Your task to perform on an android device: Is it going to rain today? Image 0: 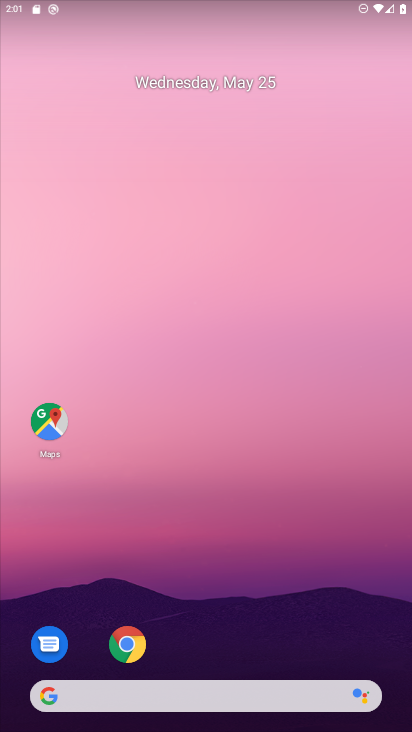
Step 0: drag from (263, 640) to (219, 293)
Your task to perform on an android device: Is it going to rain today? Image 1: 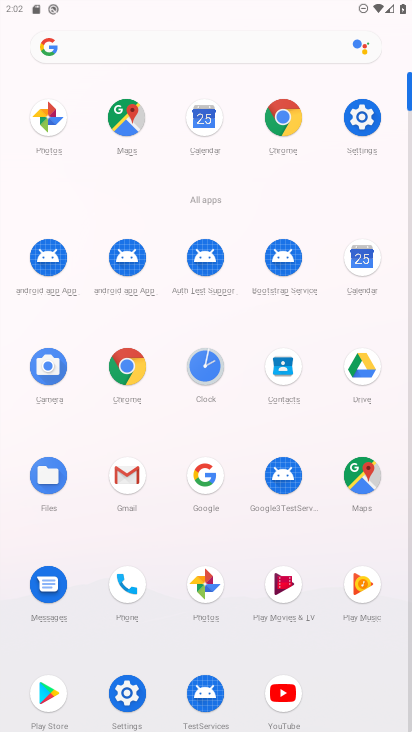
Step 1: click (276, 114)
Your task to perform on an android device: Is it going to rain today? Image 2: 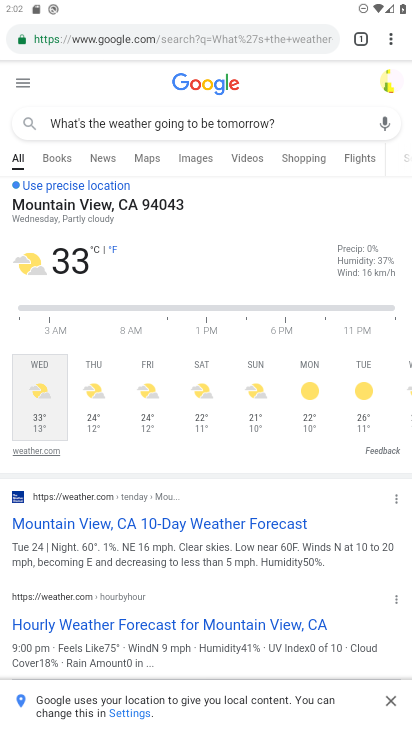
Step 2: click (288, 122)
Your task to perform on an android device: Is it going to rain today? Image 3: 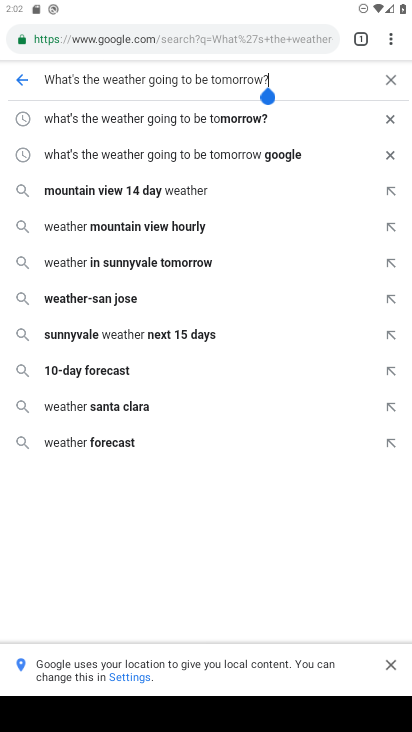
Step 3: click (393, 79)
Your task to perform on an android device: Is it going to rain today? Image 4: 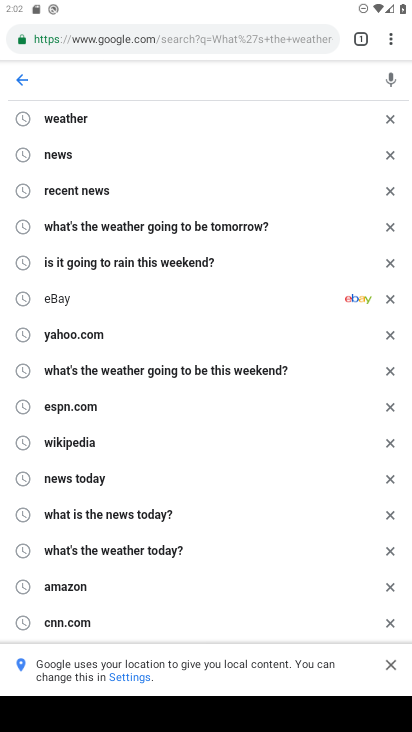
Step 4: type "Is it going to rain today?"
Your task to perform on an android device: Is it going to rain today? Image 5: 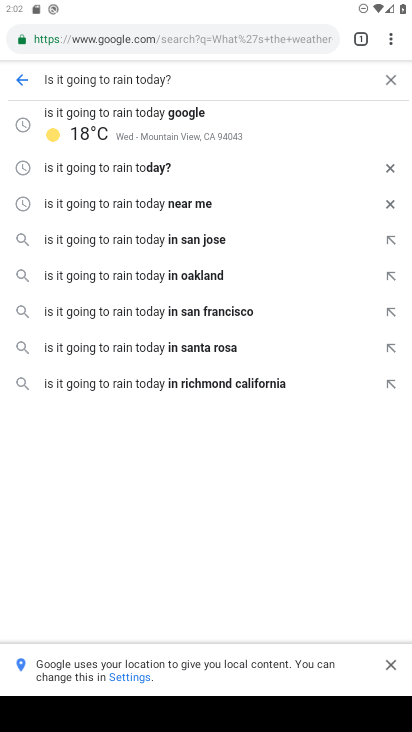
Step 5: click (122, 120)
Your task to perform on an android device: Is it going to rain today? Image 6: 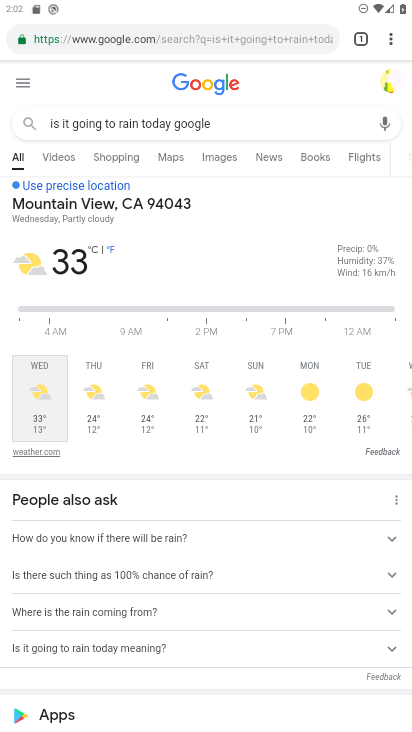
Step 6: task complete